Your task to perform on an android device: search for starred emails in the gmail app Image 0: 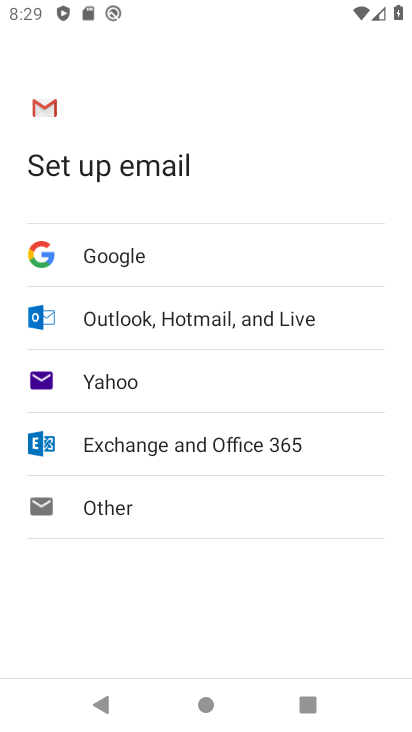
Step 0: press home button
Your task to perform on an android device: search for starred emails in the gmail app Image 1: 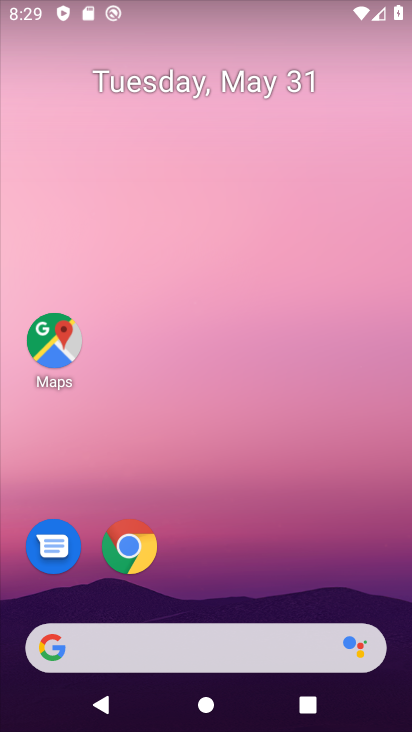
Step 1: drag from (398, 684) to (347, 61)
Your task to perform on an android device: search for starred emails in the gmail app Image 2: 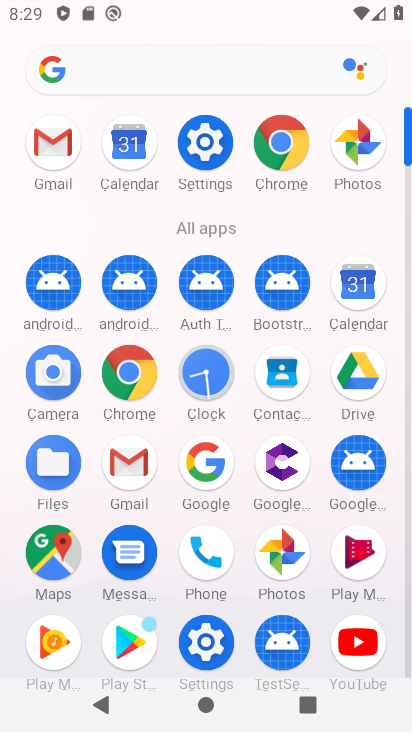
Step 2: click (38, 132)
Your task to perform on an android device: search for starred emails in the gmail app Image 3: 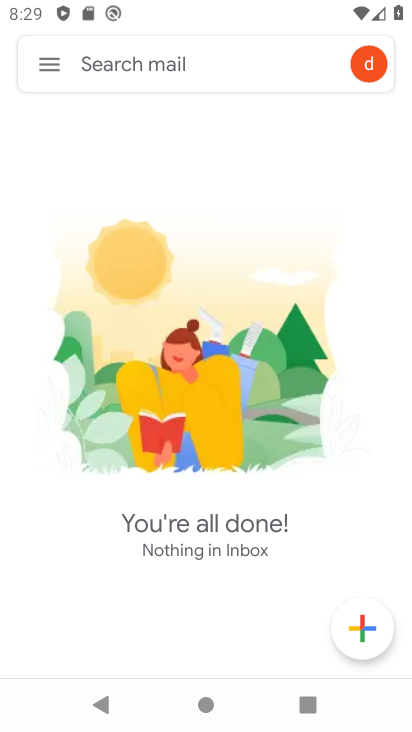
Step 3: click (51, 66)
Your task to perform on an android device: search for starred emails in the gmail app Image 4: 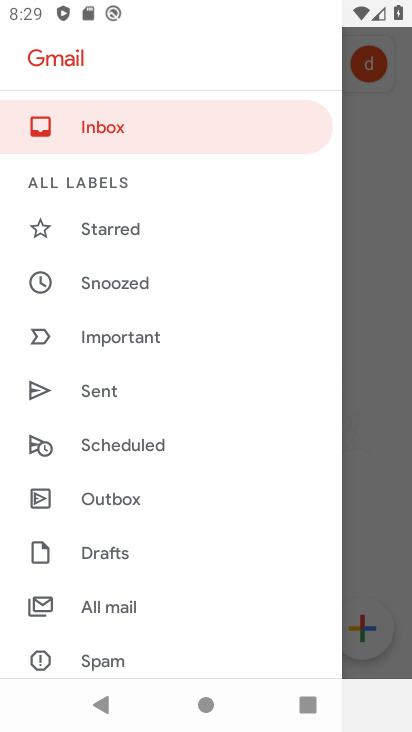
Step 4: click (97, 224)
Your task to perform on an android device: search for starred emails in the gmail app Image 5: 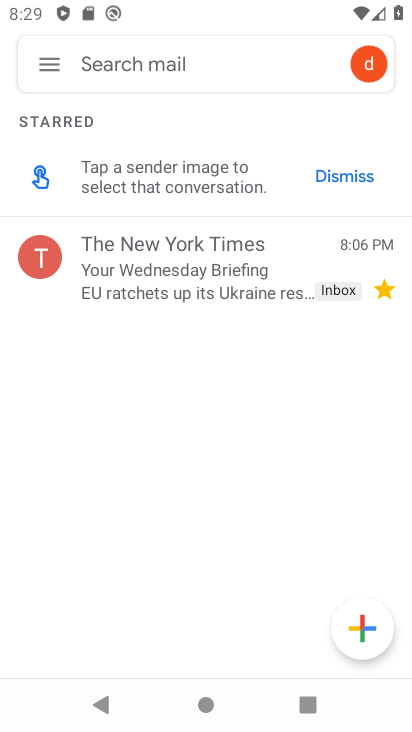
Step 5: task complete